Your task to perform on an android device: Open calendar and show me the third week of next month Image 0: 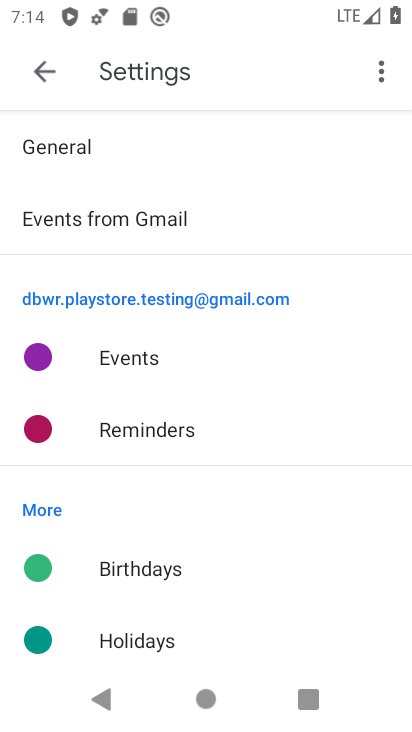
Step 0: press home button
Your task to perform on an android device: Open calendar and show me the third week of next month Image 1: 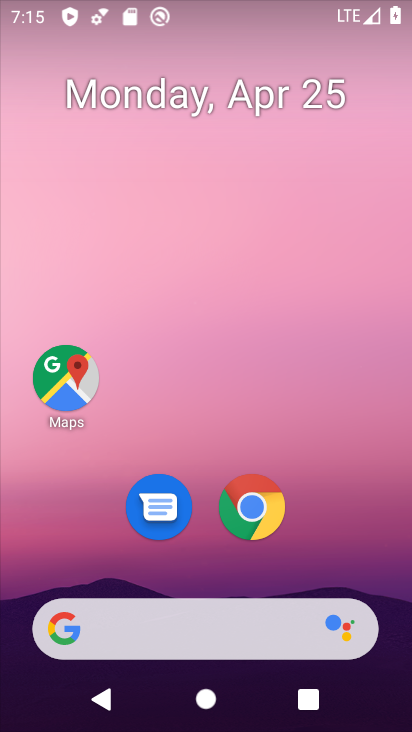
Step 1: drag from (370, 535) to (371, 58)
Your task to perform on an android device: Open calendar and show me the third week of next month Image 2: 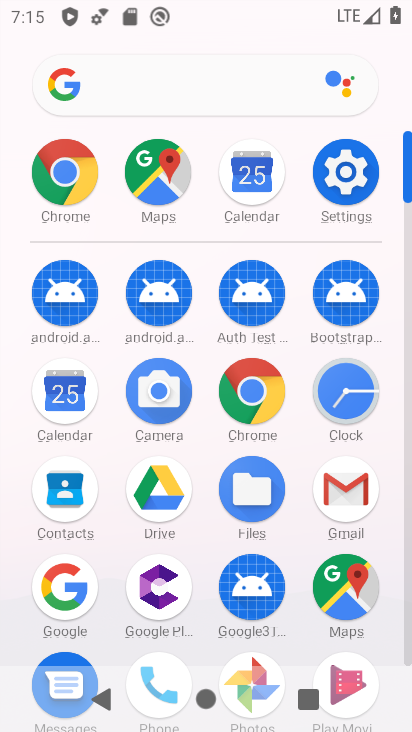
Step 2: click (41, 396)
Your task to perform on an android device: Open calendar and show me the third week of next month Image 3: 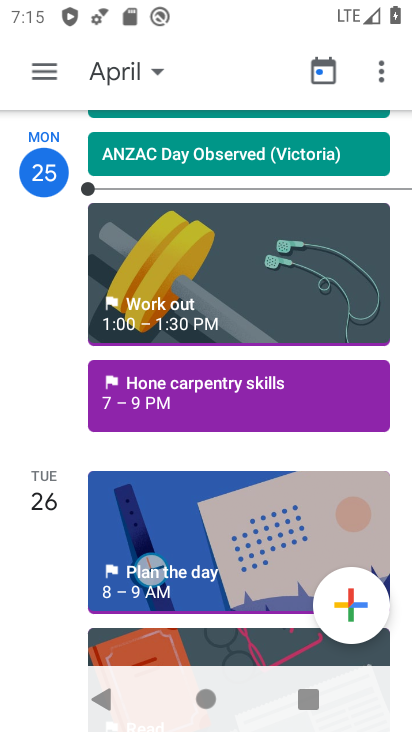
Step 3: click (40, 75)
Your task to perform on an android device: Open calendar and show me the third week of next month Image 4: 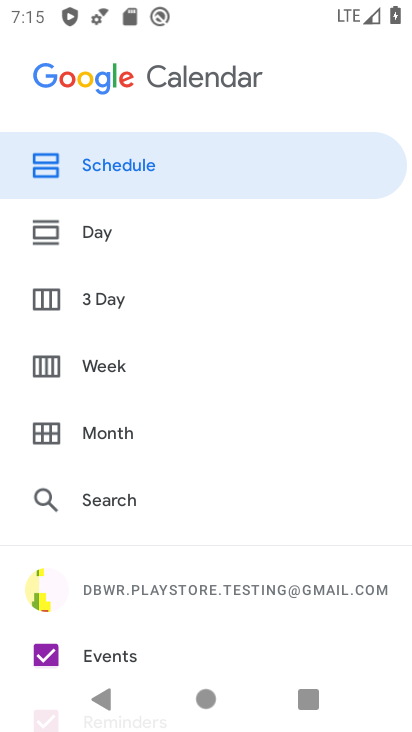
Step 4: drag from (356, 459) to (13, 363)
Your task to perform on an android device: Open calendar and show me the third week of next month Image 5: 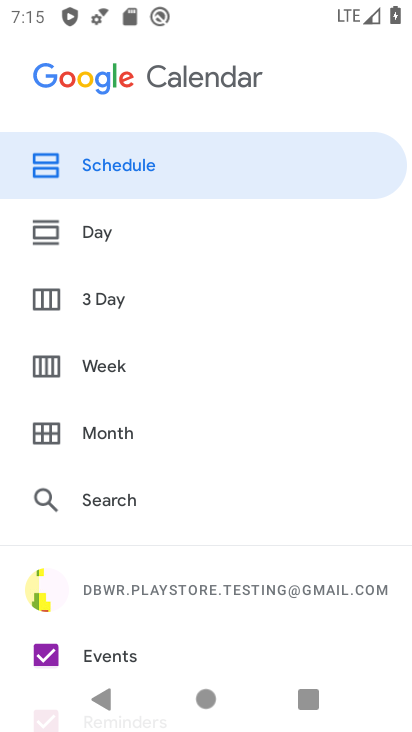
Step 5: drag from (383, 334) to (14, 318)
Your task to perform on an android device: Open calendar and show me the third week of next month Image 6: 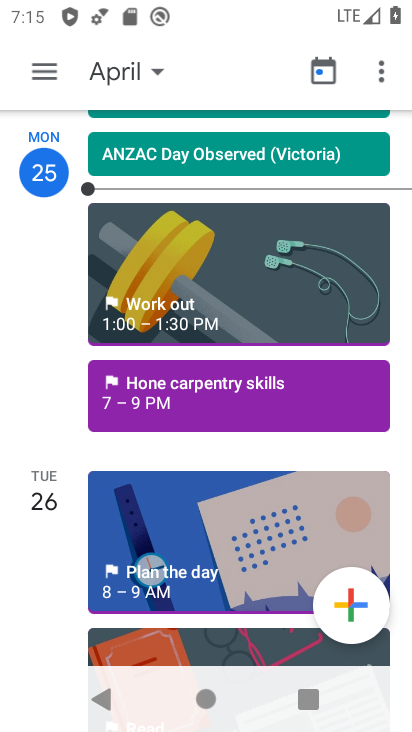
Step 6: click (130, 61)
Your task to perform on an android device: Open calendar and show me the third week of next month Image 7: 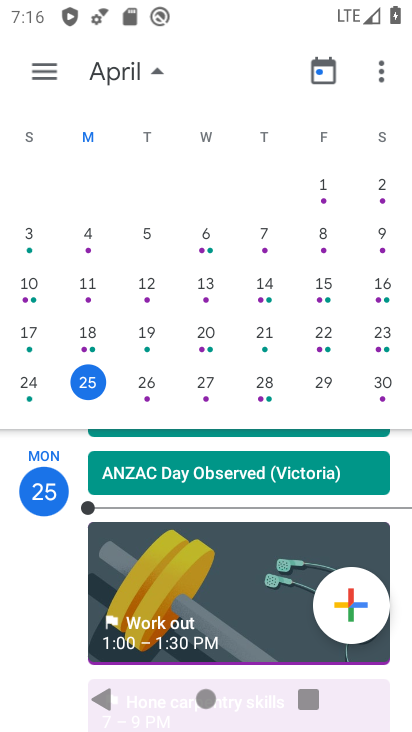
Step 7: drag from (346, 306) to (4, 340)
Your task to perform on an android device: Open calendar and show me the third week of next month Image 8: 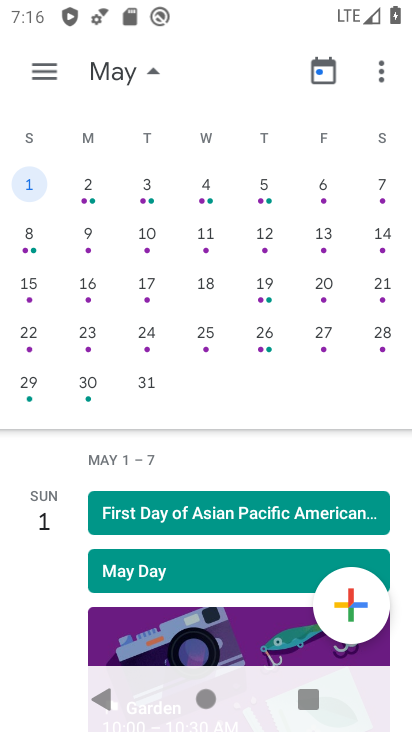
Step 8: click (23, 281)
Your task to perform on an android device: Open calendar and show me the third week of next month Image 9: 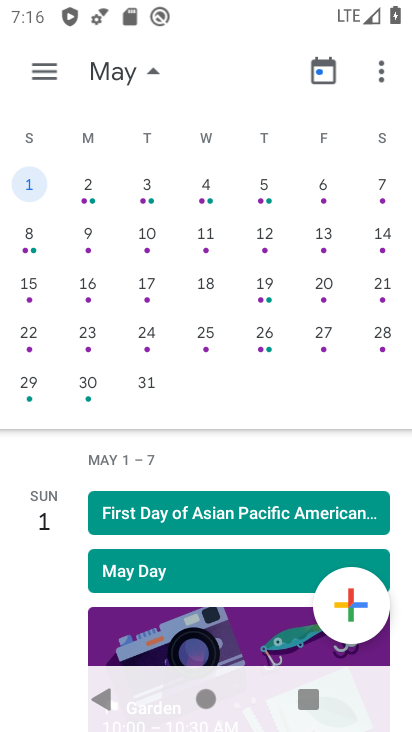
Step 9: click (33, 285)
Your task to perform on an android device: Open calendar and show me the third week of next month Image 10: 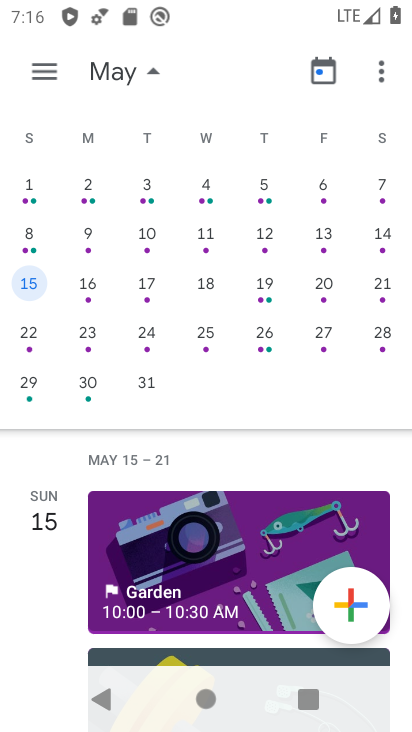
Step 10: task complete